Your task to perform on an android device: Go to notification settings Image 0: 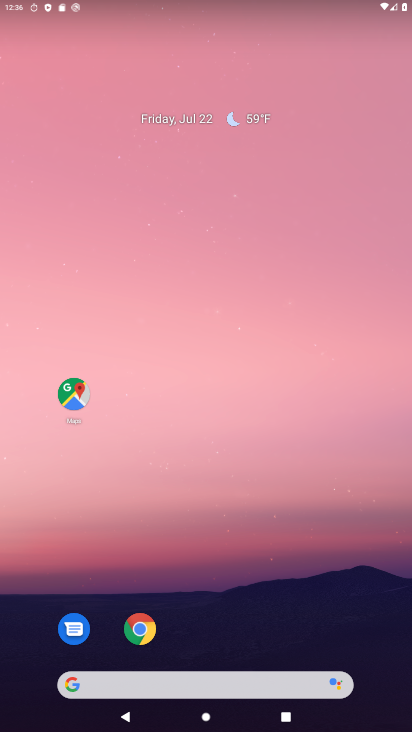
Step 0: drag from (177, 691) to (300, 127)
Your task to perform on an android device: Go to notification settings Image 1: 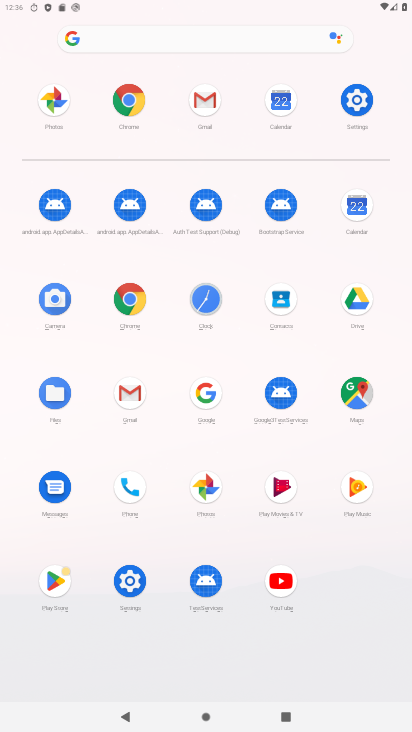
Step 1: click (364, 97)
Your task to perform on an android device: Go to notification settings Image 2: 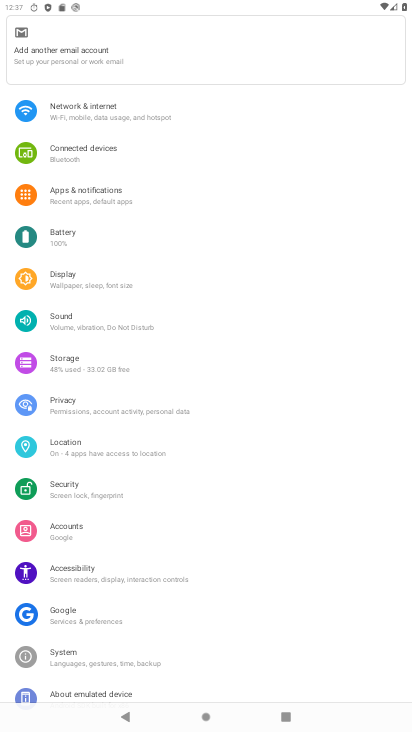
Step 2: click (78, 196)
Your task to perform on an android device: Go to notification settings Image 3: 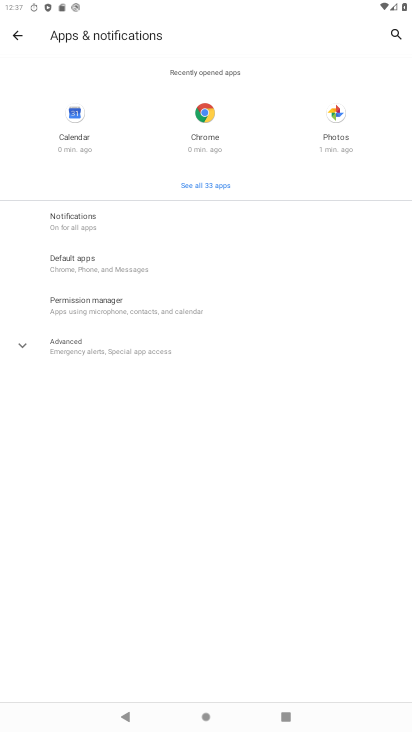
Step 3: task complete